Your task to perform on an android device: Search for "logitech g502" on target, select the first entry, add it to the cart, then select checkout. Image 0: 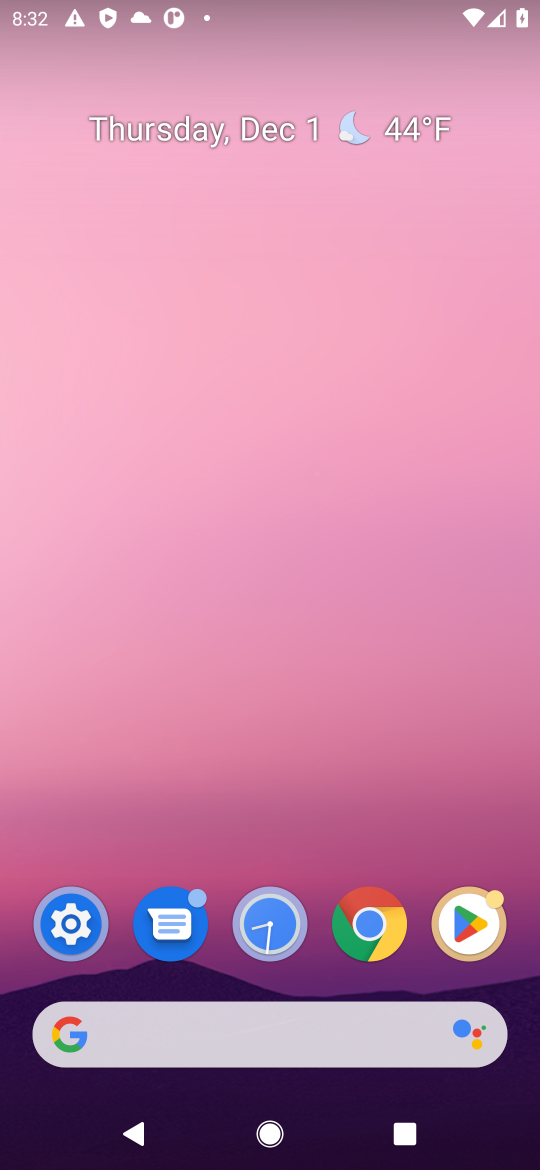
Step 0: type "target"
Your task to perform on an android device: Search for "logitech g502" on target, select the first entry, add it to the cart, then select checkout. Image 1: 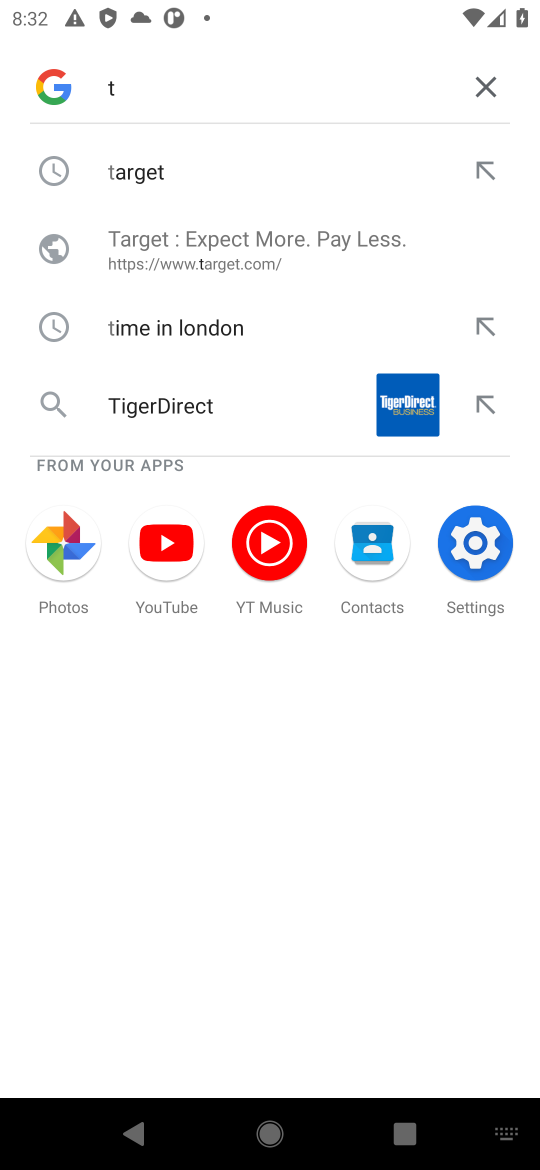
Step 1: click (135, 190)
Your task to perform on an android device: Search for "logitech g502" on target, select the first entry, add it to the cart, then select checkout. Image 2: 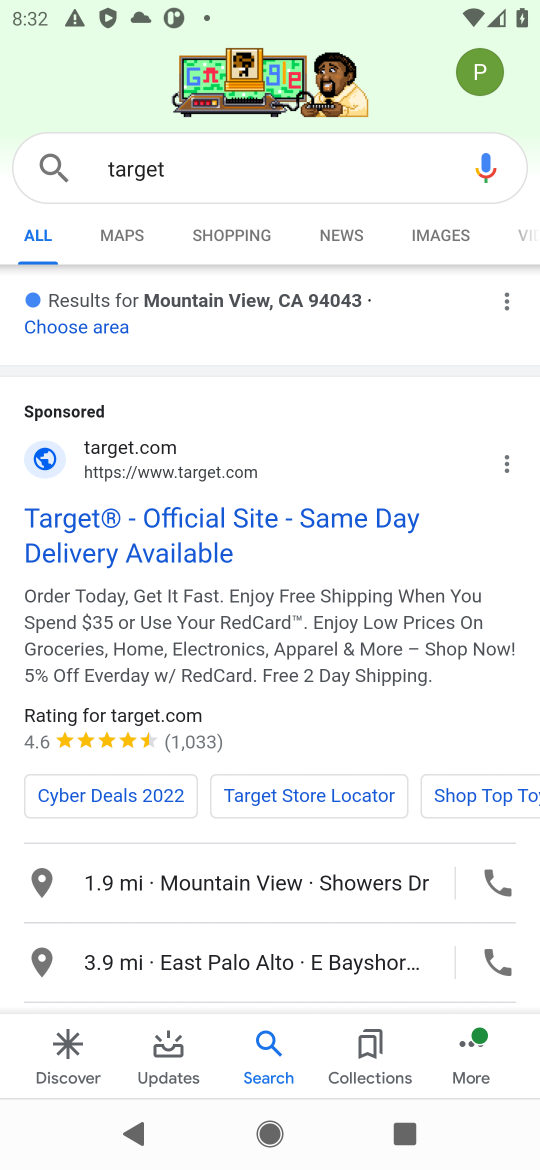
Step 2: click (228, 498)
Your task to perform on an android device: Search for "logitech g502" on target, select the first entry, add it to the cart, then select checkout. Image 3: 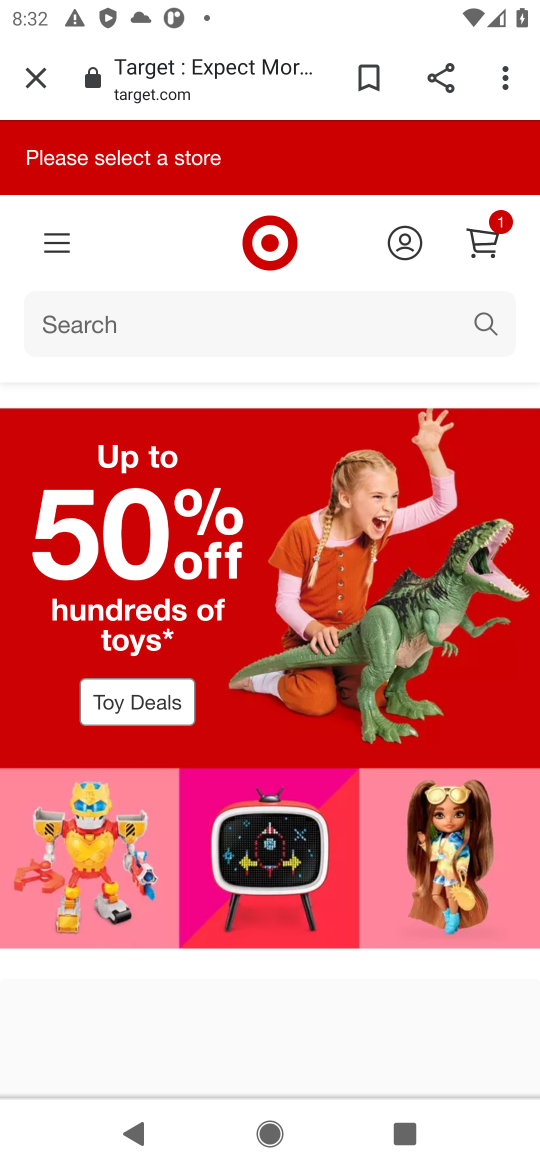
Step 3: click (99, 326)
Your task to perform on an android device: Search for "logitech g502" on target, select the first entry, add it to the cart, then select checkout. Image 4: 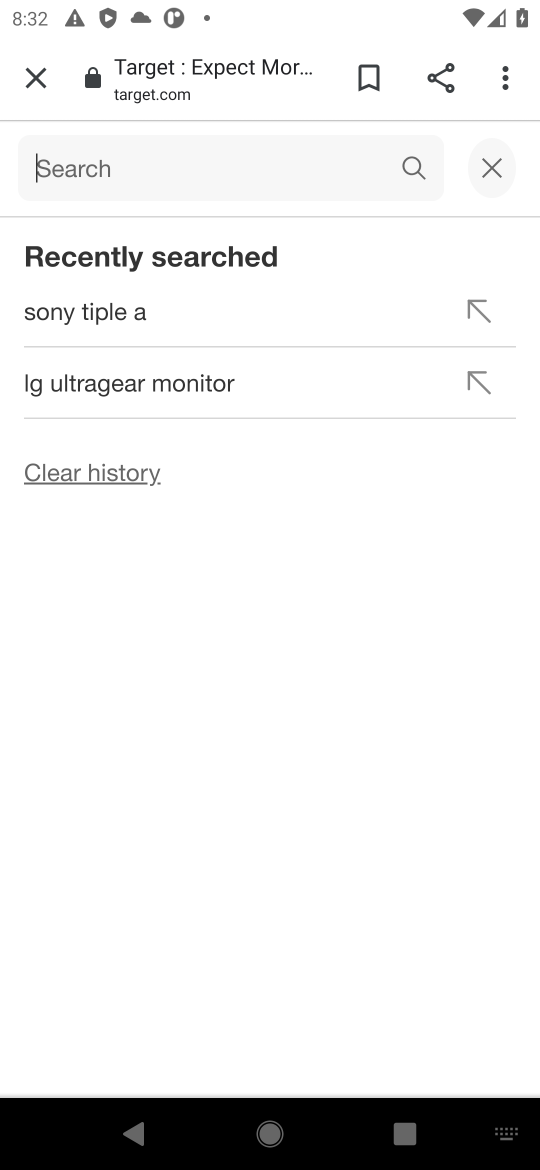
Step 4: type "logitech gpro"
Your task to perform on an android device: Search for "logitech g502" on target, select the first entry, add it to the cart, then select checkout. Image 5: 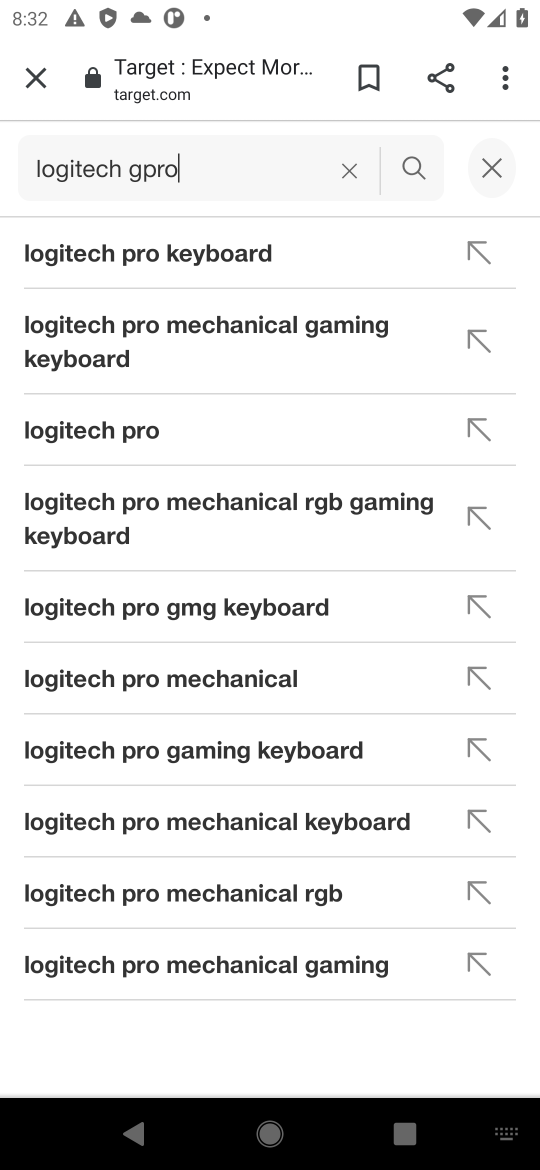
Step 5: click (49, 237)
Your task to perform on an android device: Search for "logitech g502" on target, select the first entry, add it to the cart, then select checkout. Image 6: 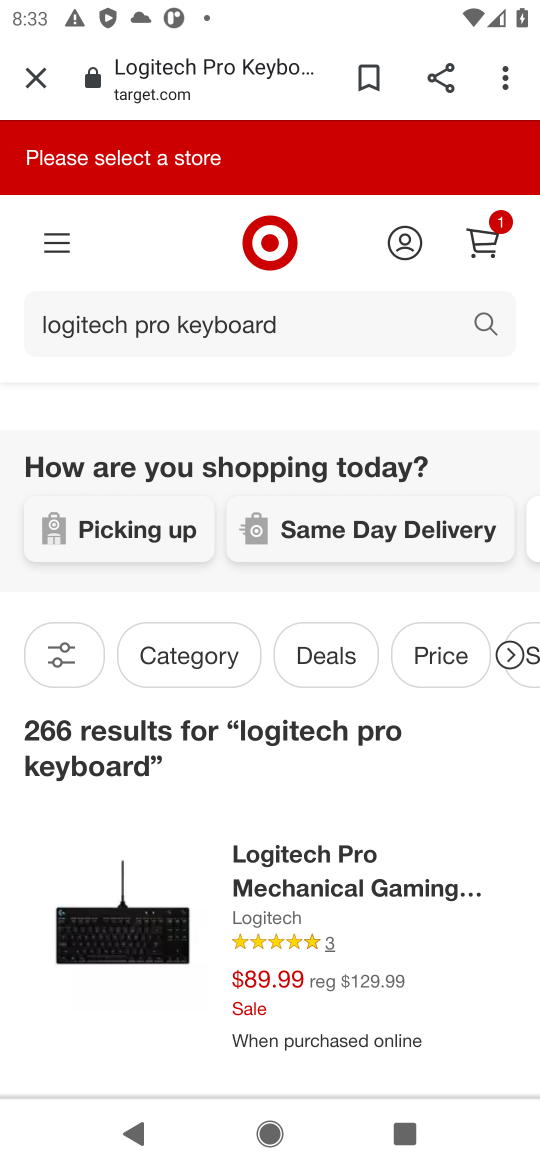
Step 6: task complete